Your task to perform on an android device: open app "Reddit" (install if not already installed) Image 0: 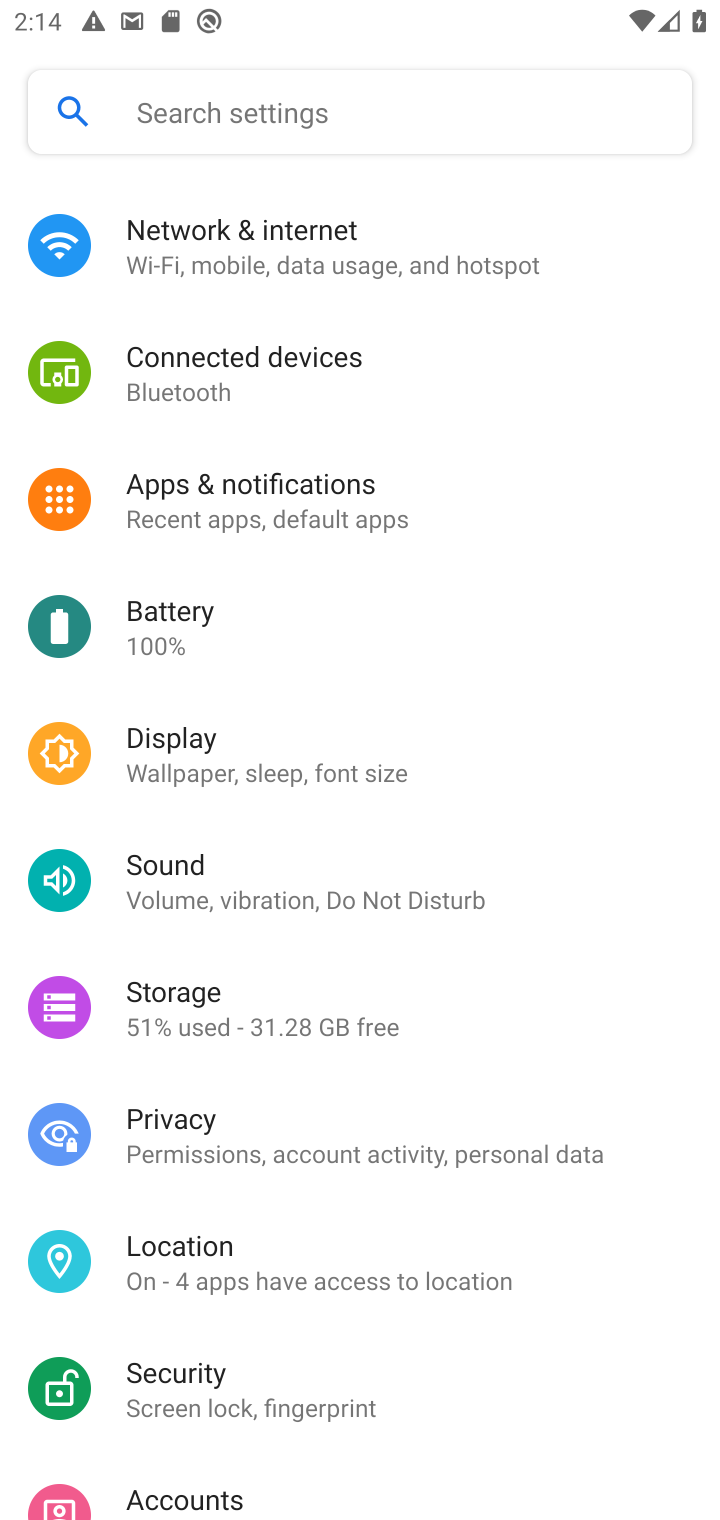
Step 0: press home button
Your task to perform on an android device: open app "Reddit" (install if not already installed) Image 1: 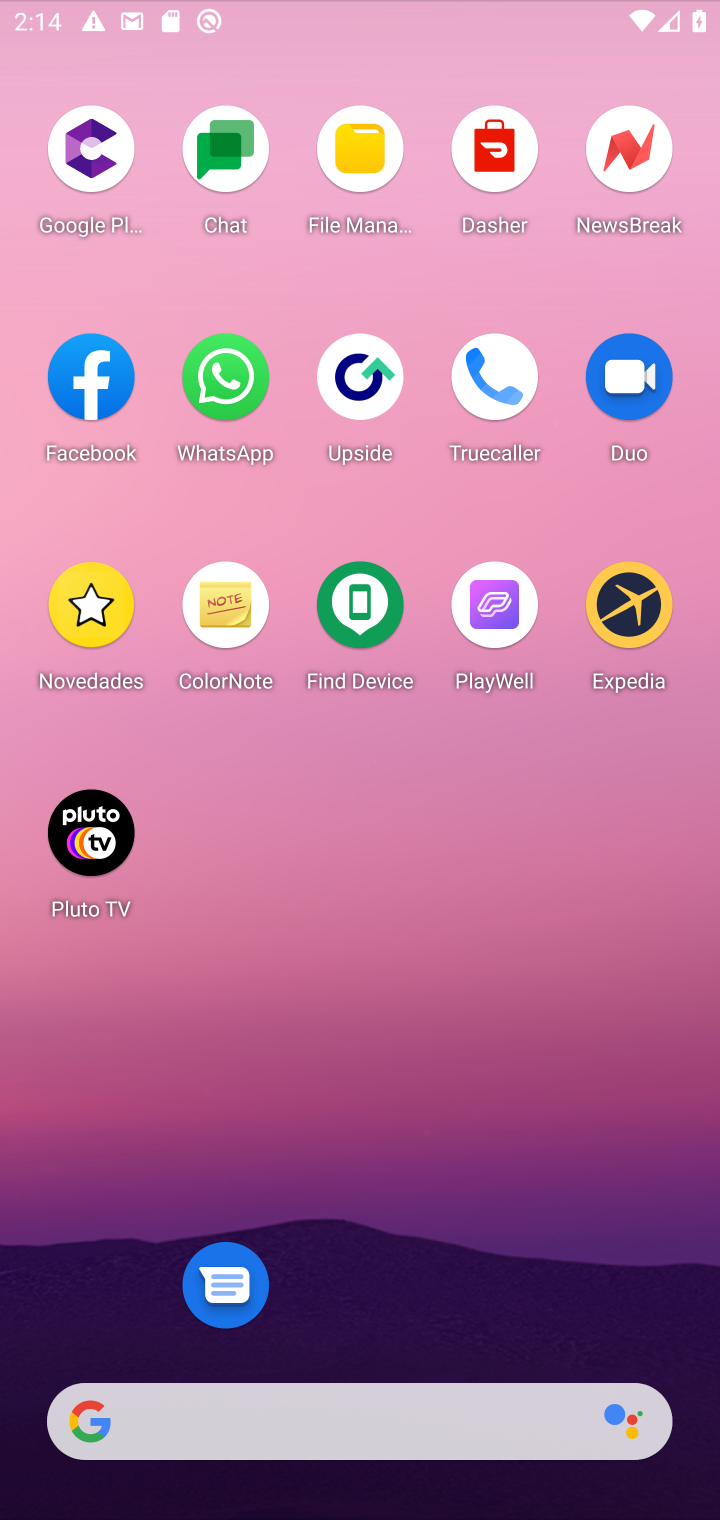
Step 1: press home button
Your task to perform on an android device: open app "Reddit" (install if not already installed) Image 2: 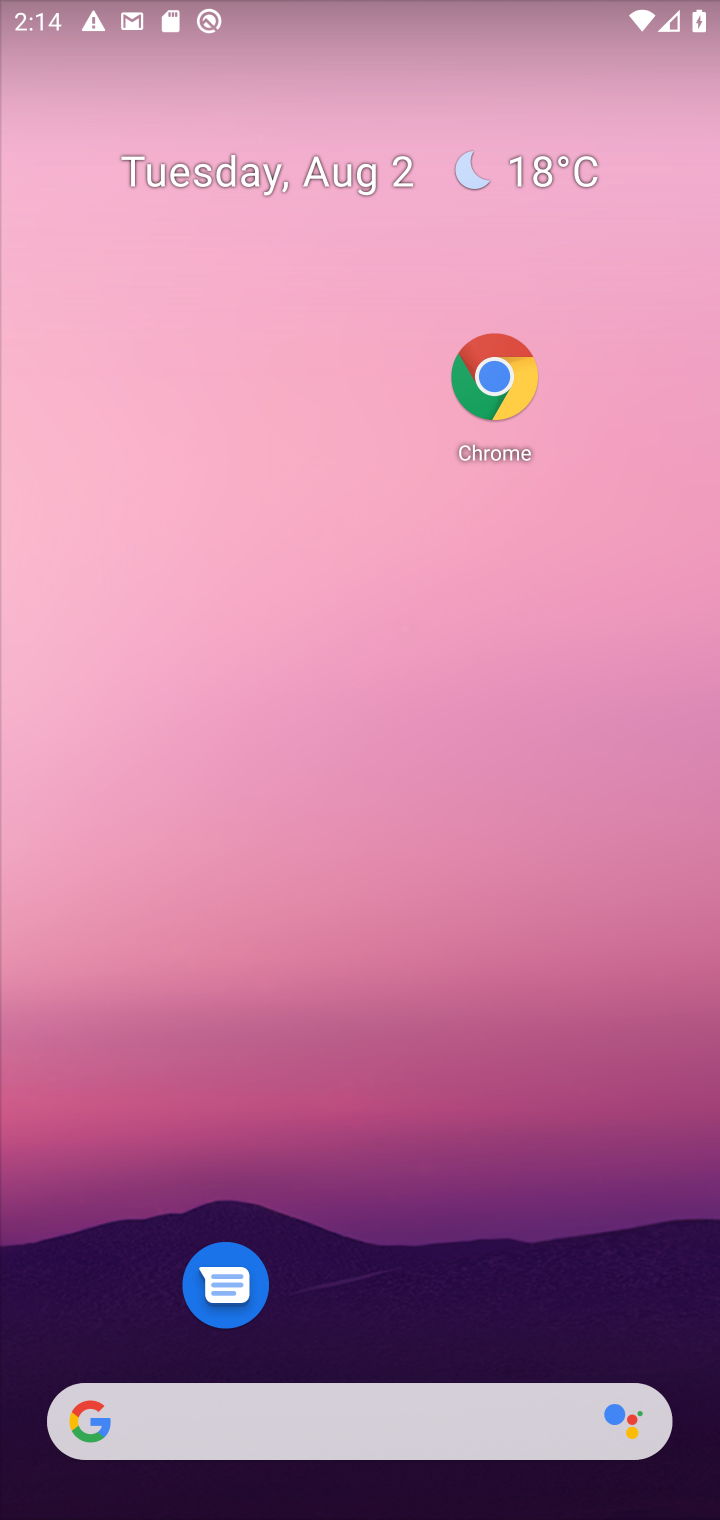
Step 2: drag from (479, 1304) to (258, 235)
Your task to perform on an android device: open app "Reddit" (install if not already installed) Image 3: 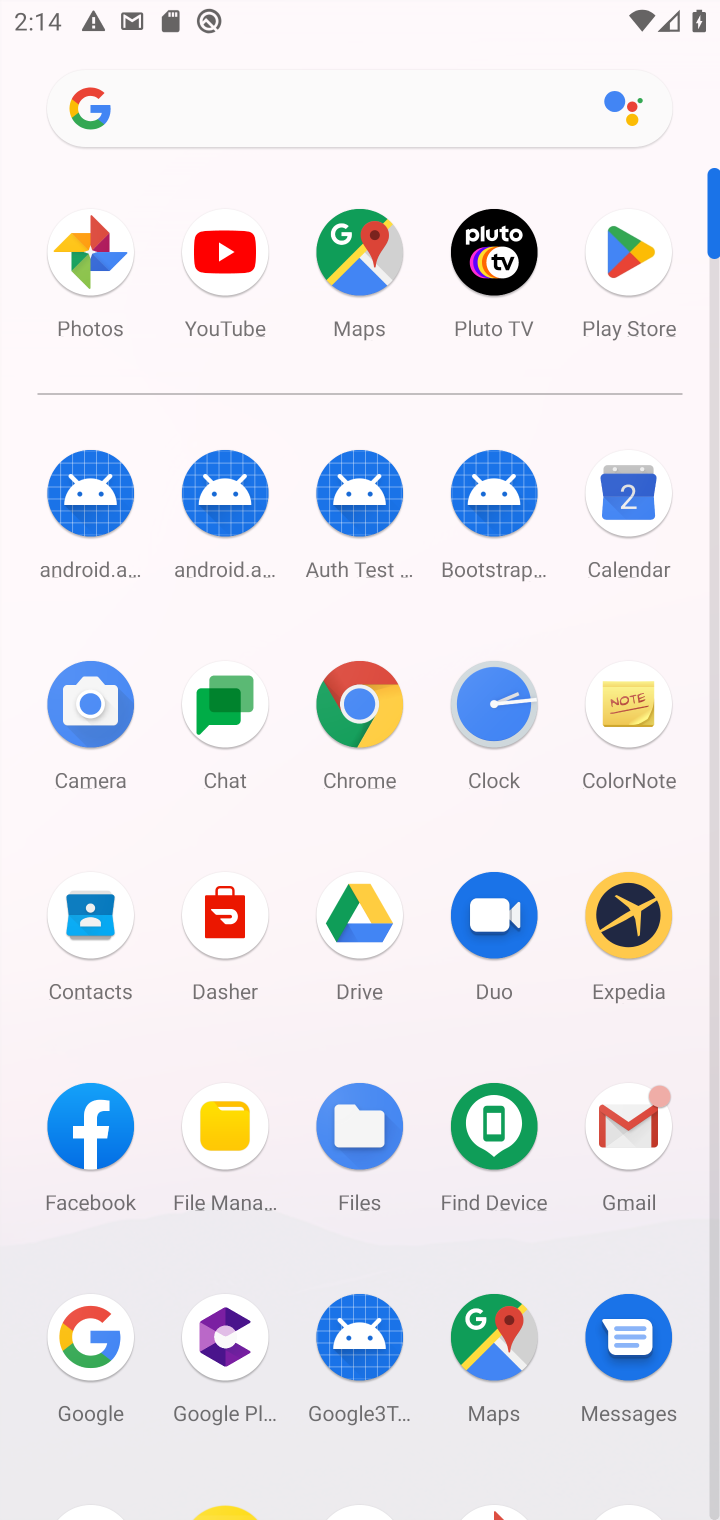
Step 3: click (611, 249)
Your task to perform on an android device: open app "Reddit" (install if not already installed) Image 4: 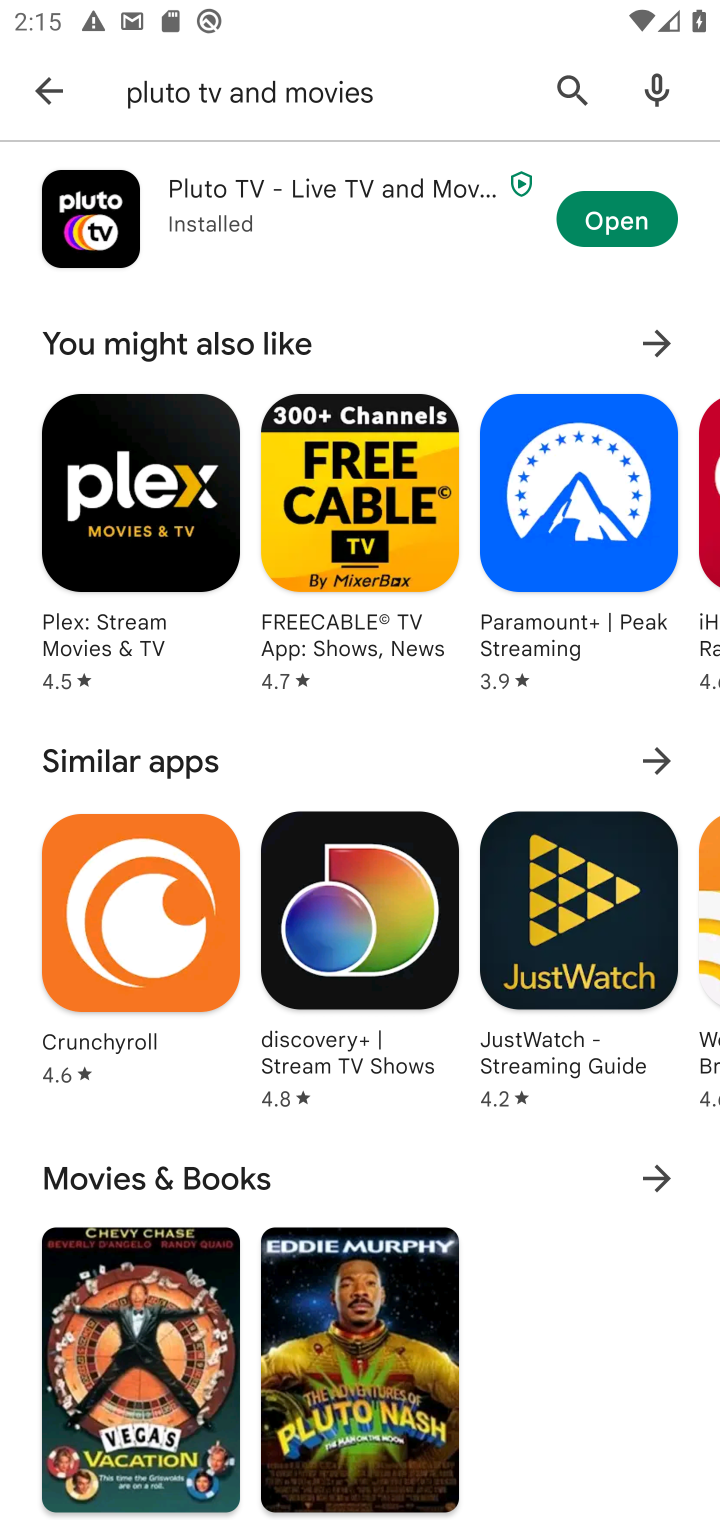
Step 4: click (567, 79)
Your task to perform on an android device: open app "Reddit" (install if not already installed) Image 5: 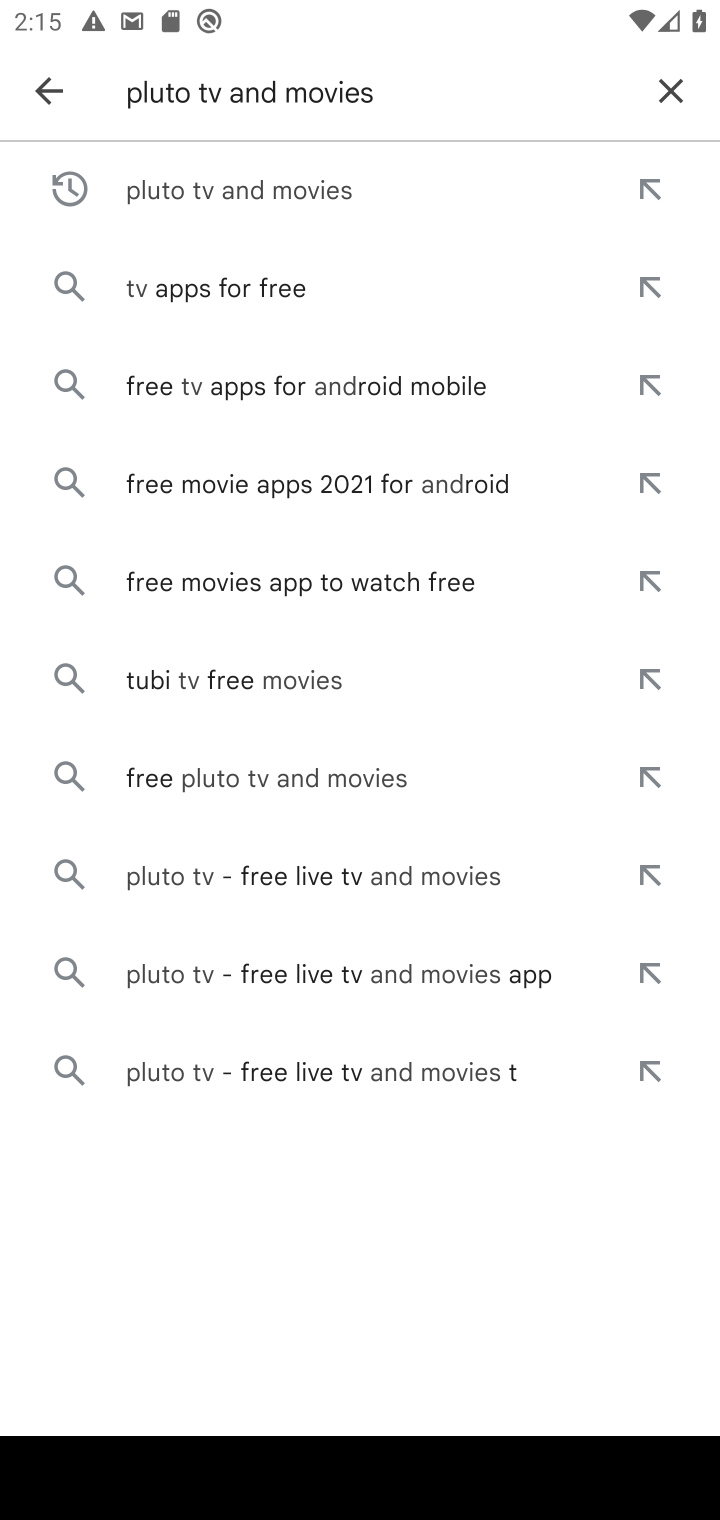
Step 5: click (664, 89)
Your task to perform on an android device: open app "Reddit" (install if not already installed) Image 6: 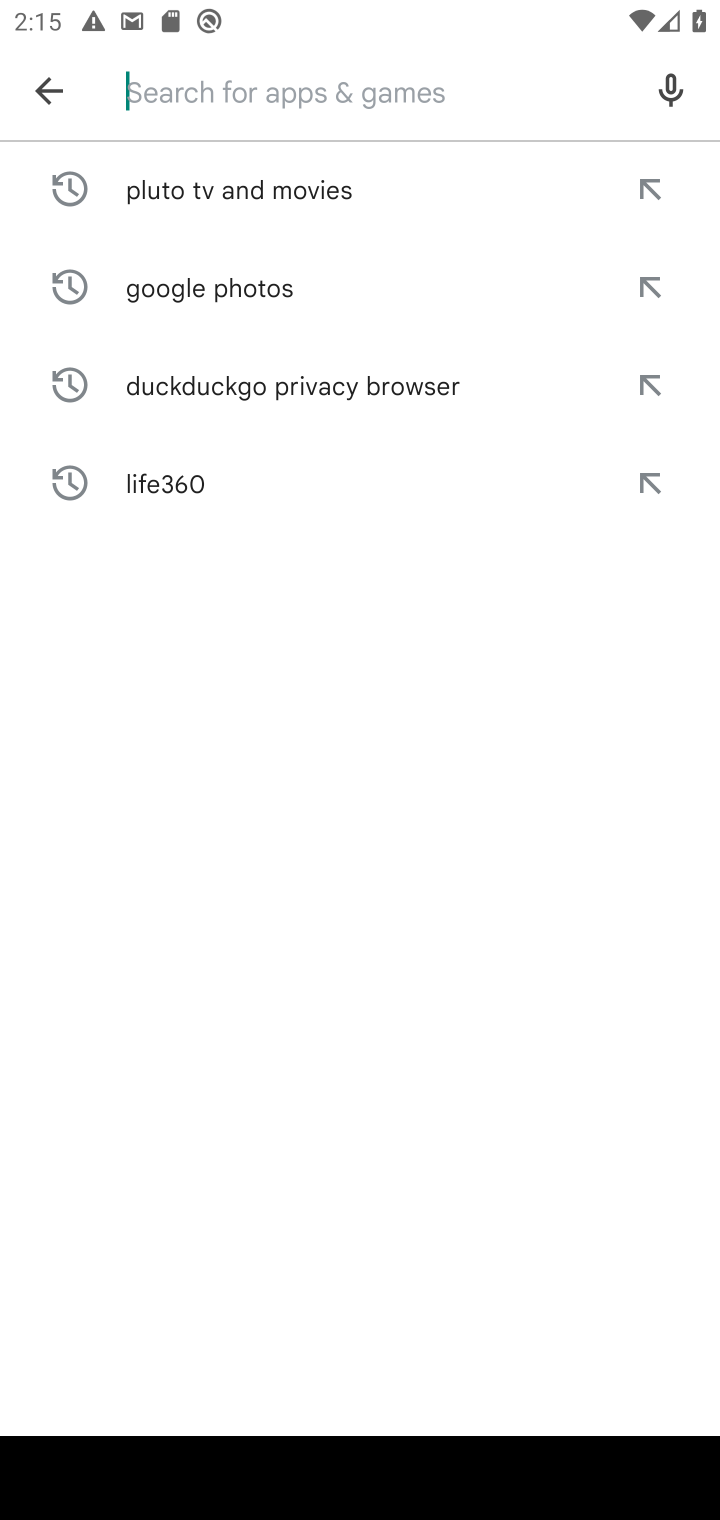
Step 6: type "Reddit"
Your task to perform on an android device: open app "Reddit" (install if not already installed) Image 7: 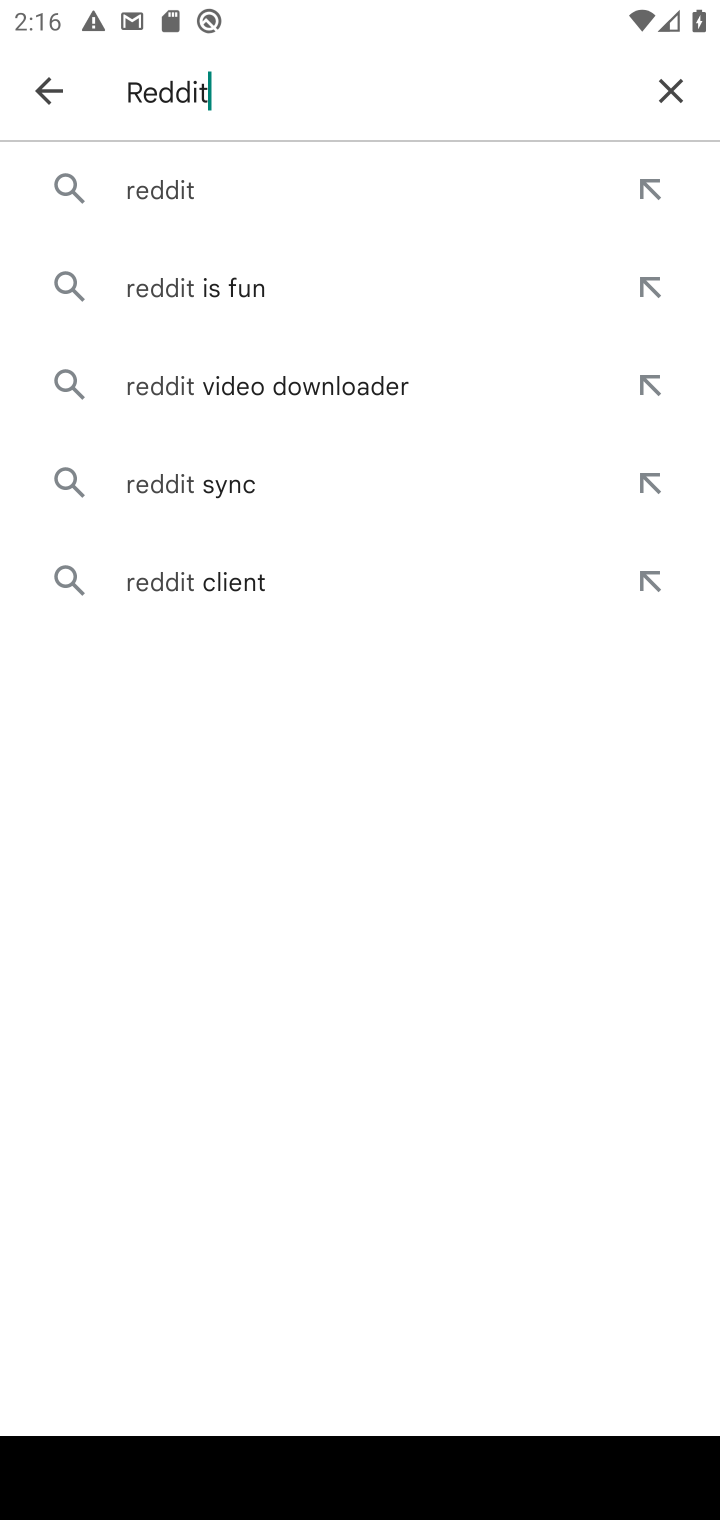
Step 7: click (178, 209)
Your task to perform on an android device: open app "Reddit" (install if not already installed) Image 8: 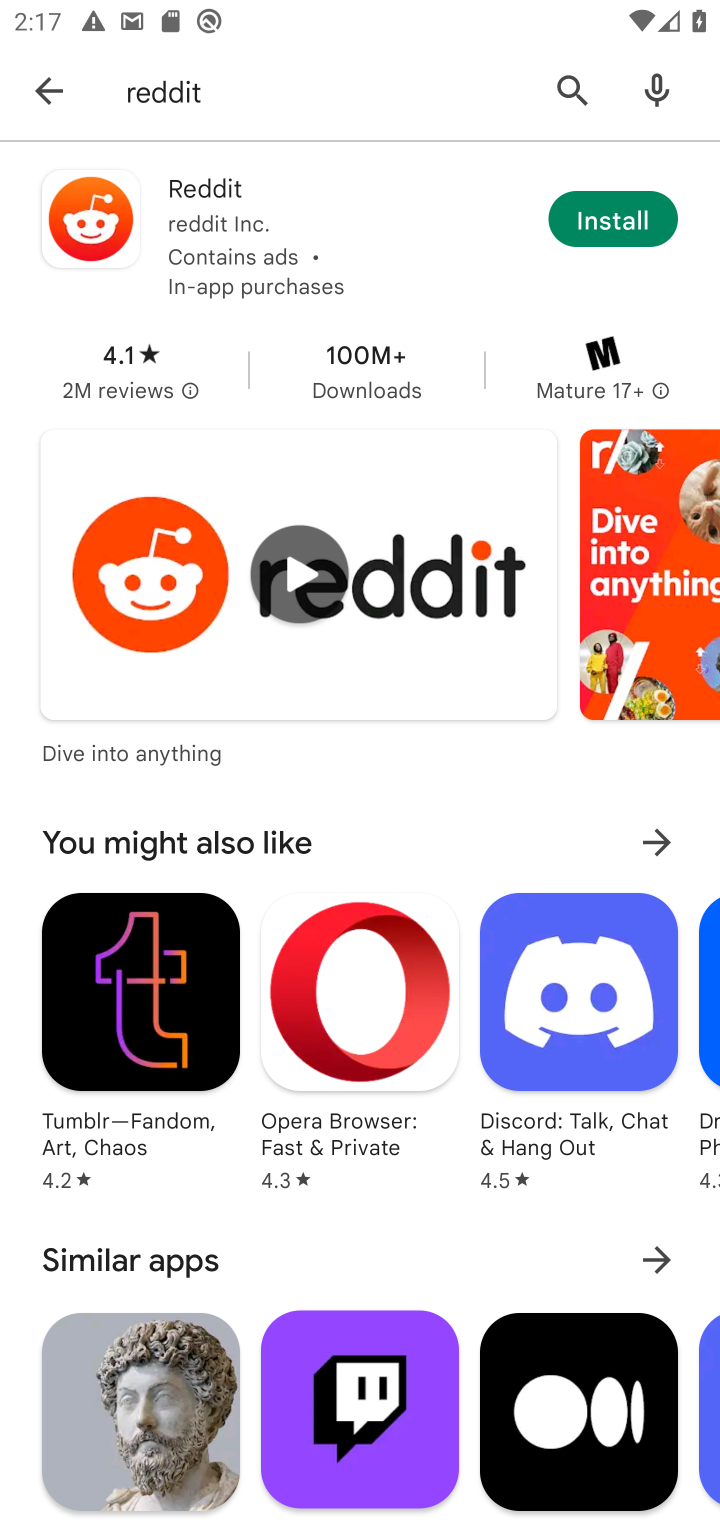
Step 8: click (642, 236)
Your task to perform on an android device: open app "Reddit" (install if not already installed) Image 9: 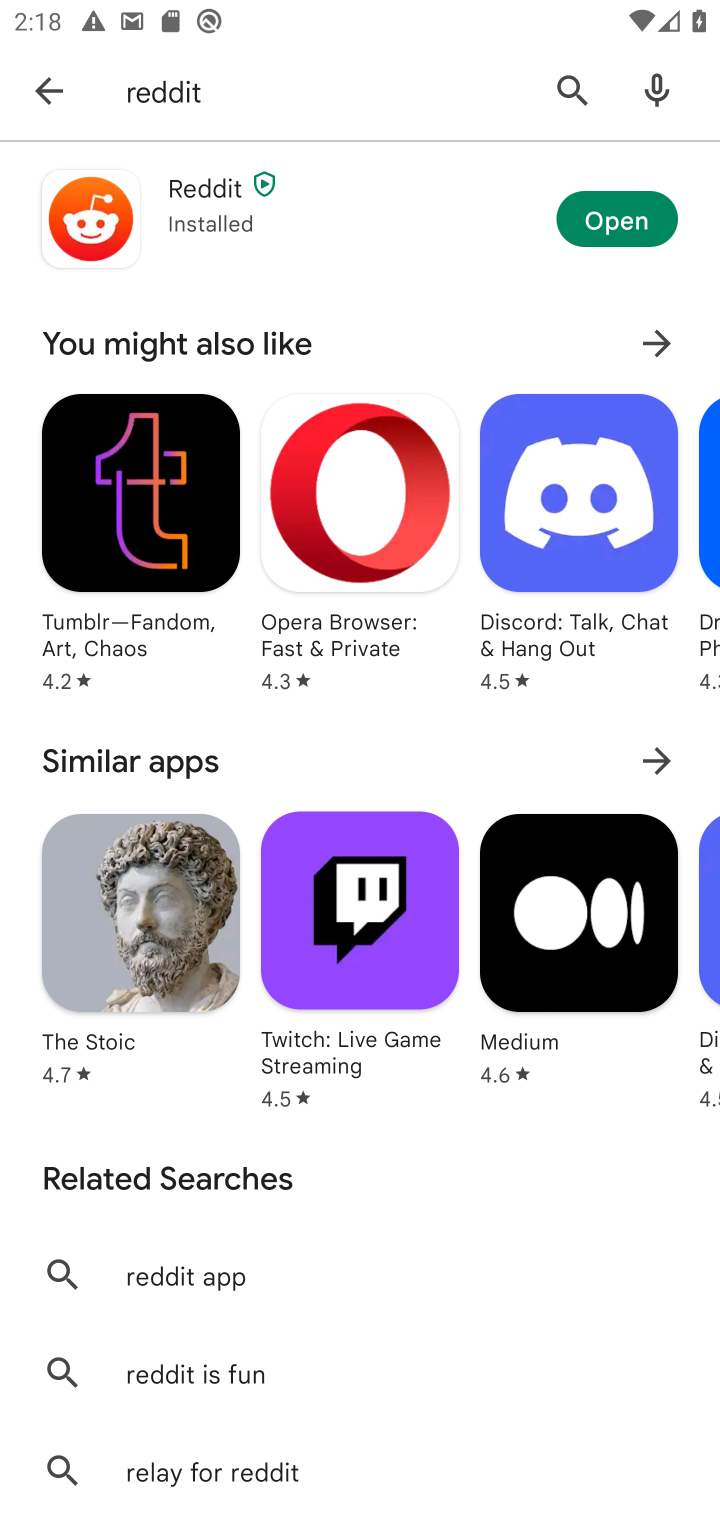
Step 9: click (592, 222)
Your task to perform on an android device: open app "Reddit" (install if not already installed) Image 10: 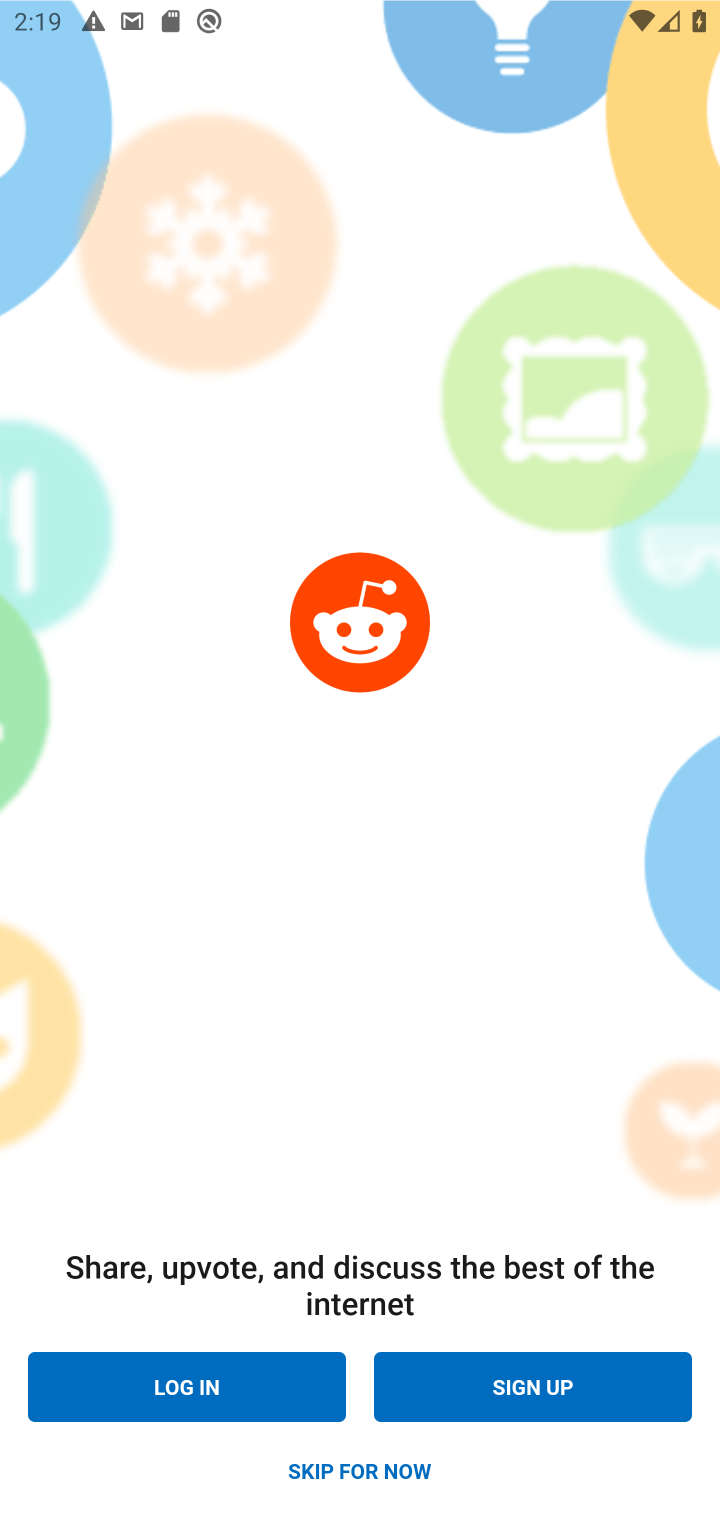
Step 10: task complete